Your task to perform on an android device: Open wifi settings Image 0: 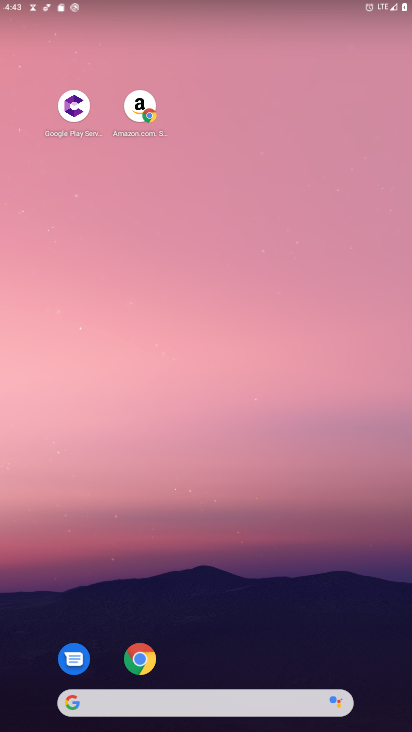
Step 0: drag from (257, 632) to (313, 139)
Your task to perform on an android device: Open wifi settings Image 1: 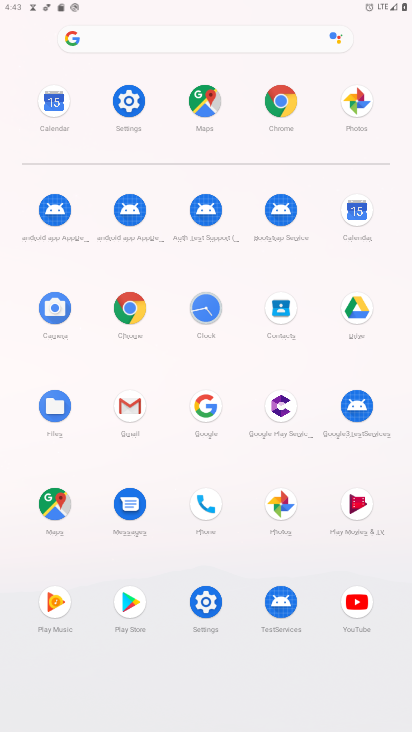
Step 1: click (129, 109)
Your task to perform on an android device: Open wifi settings Image 2: 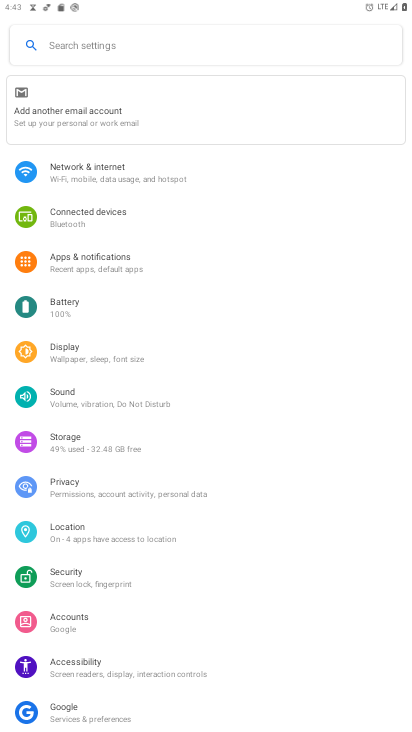
Step 2: click (147, 178)
Your task to perform on an android device: Open wifi settings Image 3: 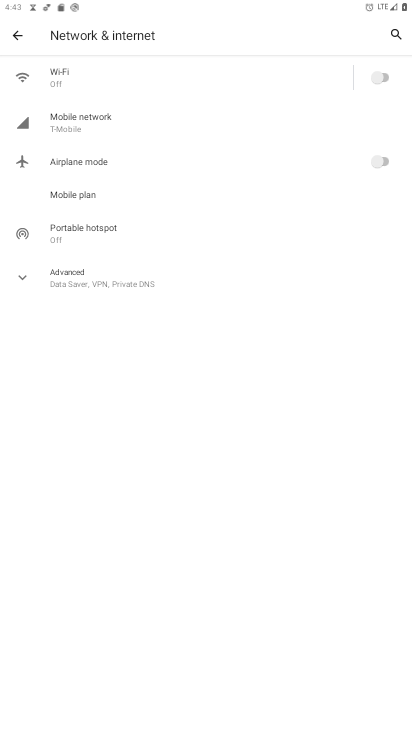
Step 3: click (90, 77)
Your task to perform on an android device: Open wifi settings Image 4: 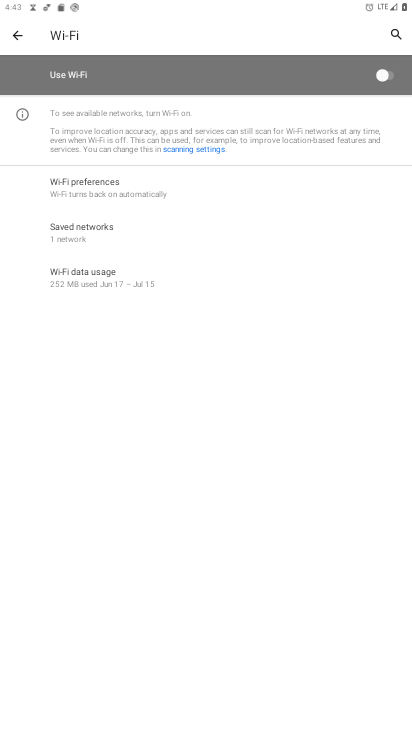
Step 4: task complete